Your task to perform on an android device: Open the map Image 0: 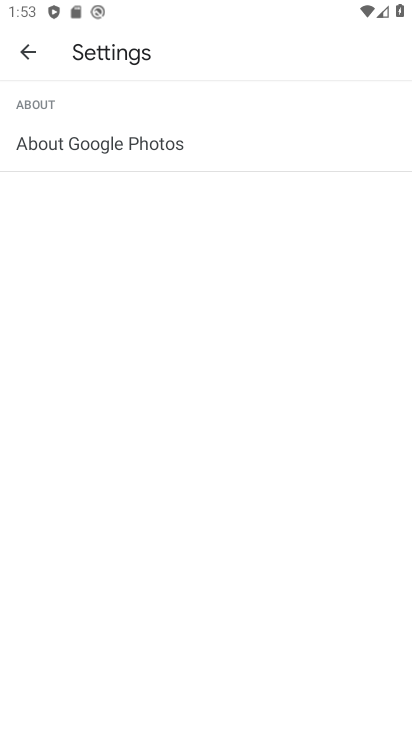
Step 0: press home button
Your task to perform on an android device: Open the map Image 1: 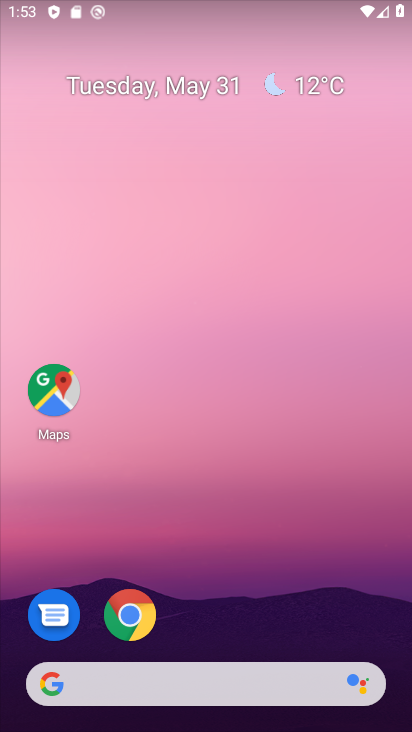
Step 1: click (51, 385)
Your task to perform on an android device: Open the map Image 2: 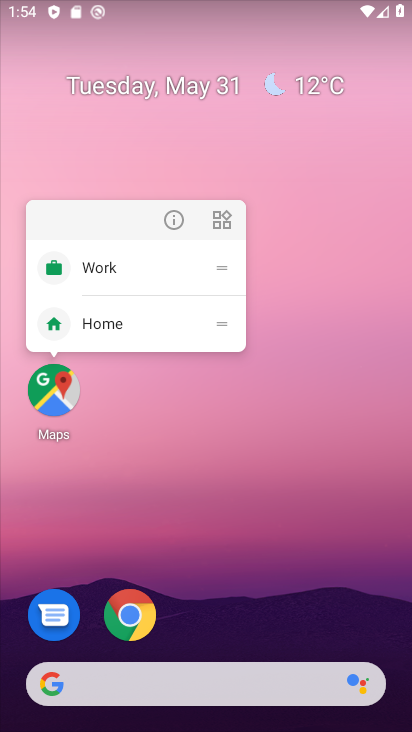
Step 2: click (50, 385)
Your task to perform on an android device: Open the map Image 3: 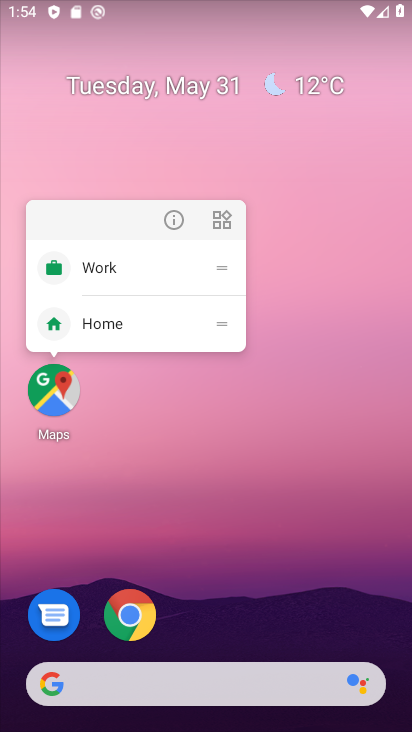
Step 3: click (51, 400)
Your task to perform on an android device: Open the map Image 4: 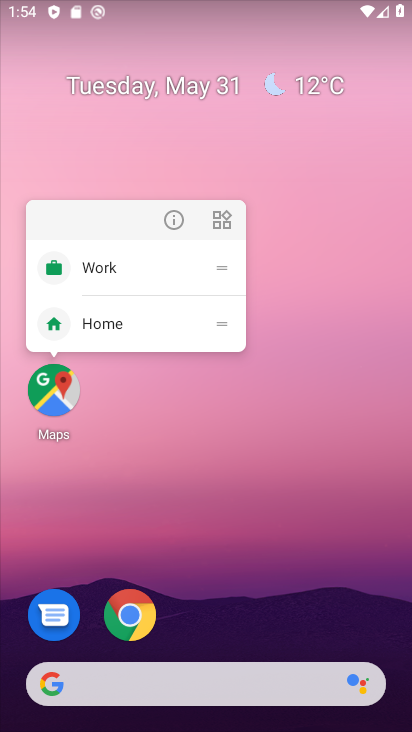
Step 4: click (53, 415)
Your task to perform on an android device: Open the map Image 5: 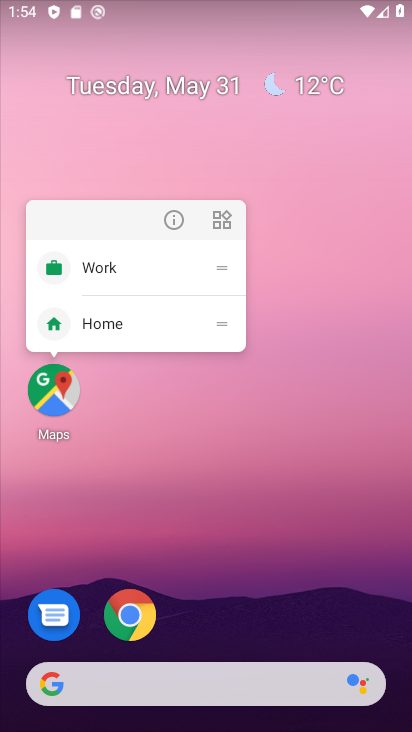
Step 5: click (55, 414)
Your task to perform on an android device: Open the map Image 6: 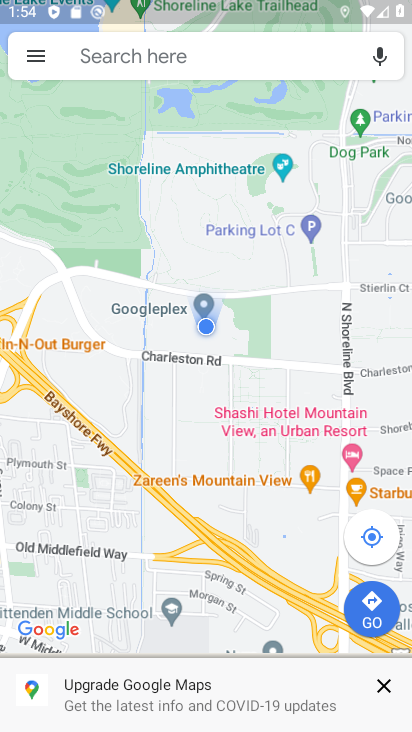
Step 6: task complete